Your task to perform on an android device: find photos in the google photos app Image 0: 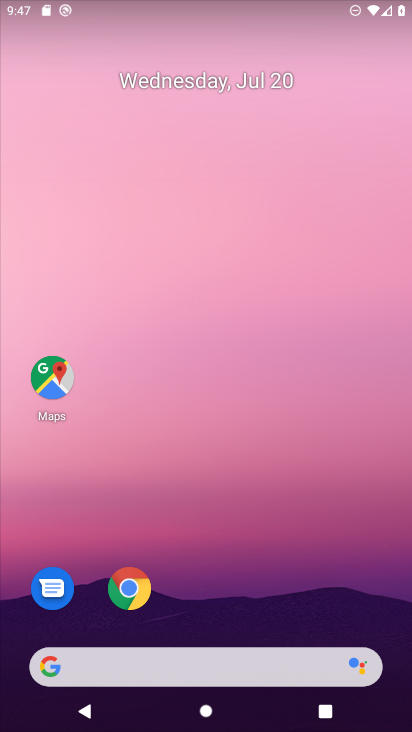
Step 0: press home button
Your task to perform on an android device: find photos in the google photos app Image 1: 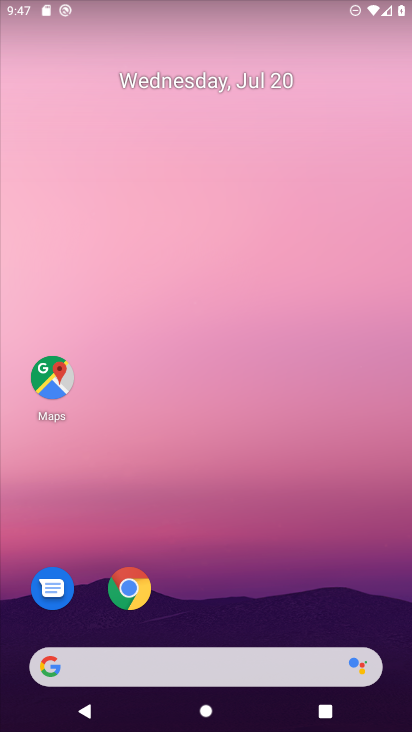
Step 1: drag from (255, 608) to (297, 87)
Your task to perform on an android device: find photos in the google photos app Image 2: 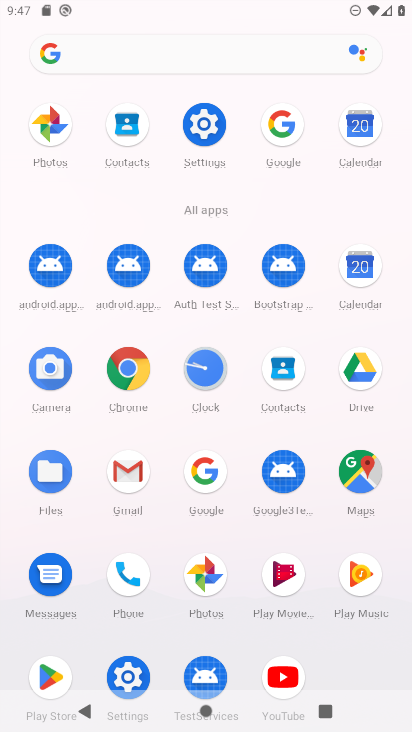
Step 2: click (215, 567)
Your task to perform on an android device: find photos in the google photos app Image 3: 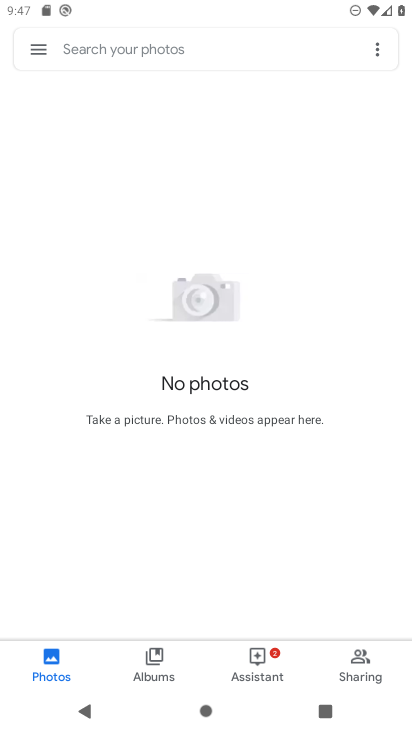
Step 3: task complete